Your task to perform on an android device: View the shopping cart on bestbuy. Search for "macbook" on bestbuy, select the first entry, add it to the cart, then select checkout. Image 0: 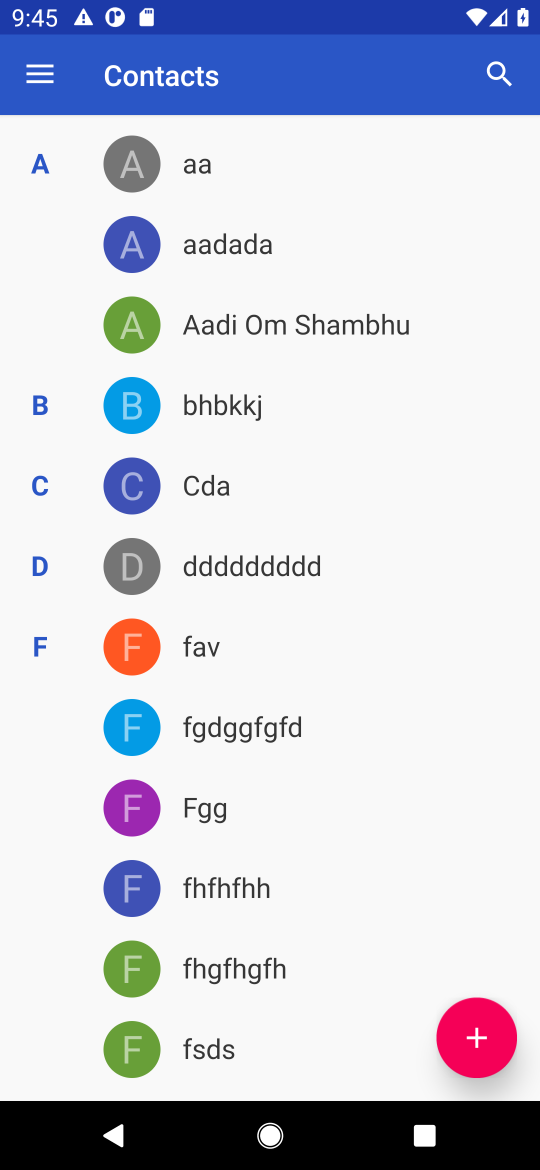
Step 0: press home button
Your task to perform on an android device: View the shopping cart on bestbuy. Search for "macbook" on bestbuy, select the first entry, add it to the cart, then select checkout. Image 1: 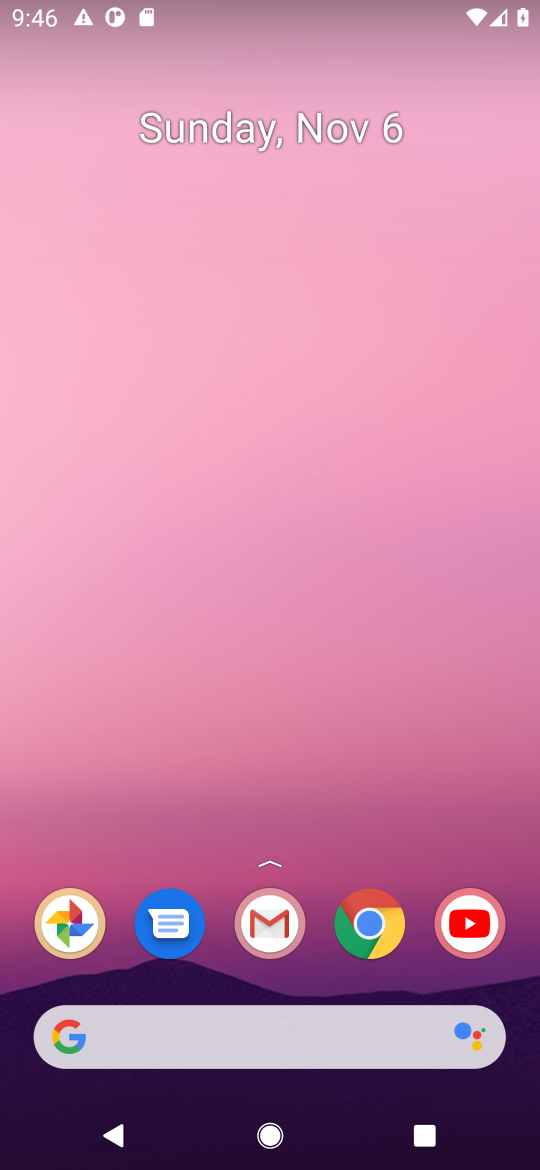
Step 1: click (374, 945)
Your task to perform on an android device: View the shopping cart on bestbuy. Search for "macbook" on bestbuy, select the first entry, add it to the cart, then select checkout. Image 2: 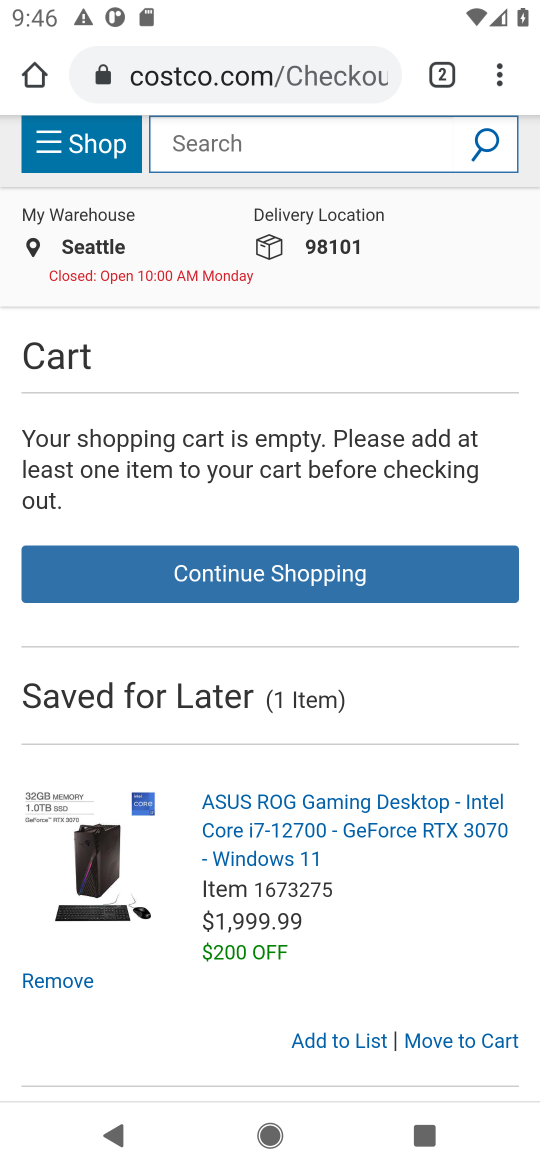
Step 2: click (255, 65)
Your task to perform on an android device: View the shopping cart on bestbuy. Search for "macbook" on bestbuy, select the first entry, add it to the cart, then select checkout. Image 3: 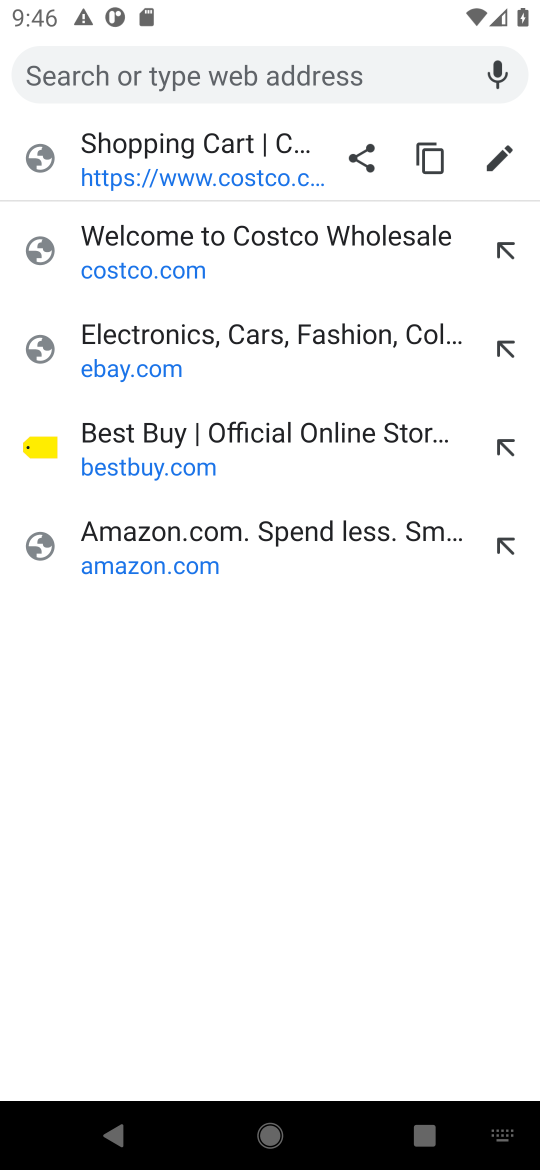
Step 3: click (177, 480)
Your task to perform on an android device: View the shopping cart on bestbuy. Search for "macbook" on bestbuy, select the first entry, add it to the cart, then select checkout. Image 4: 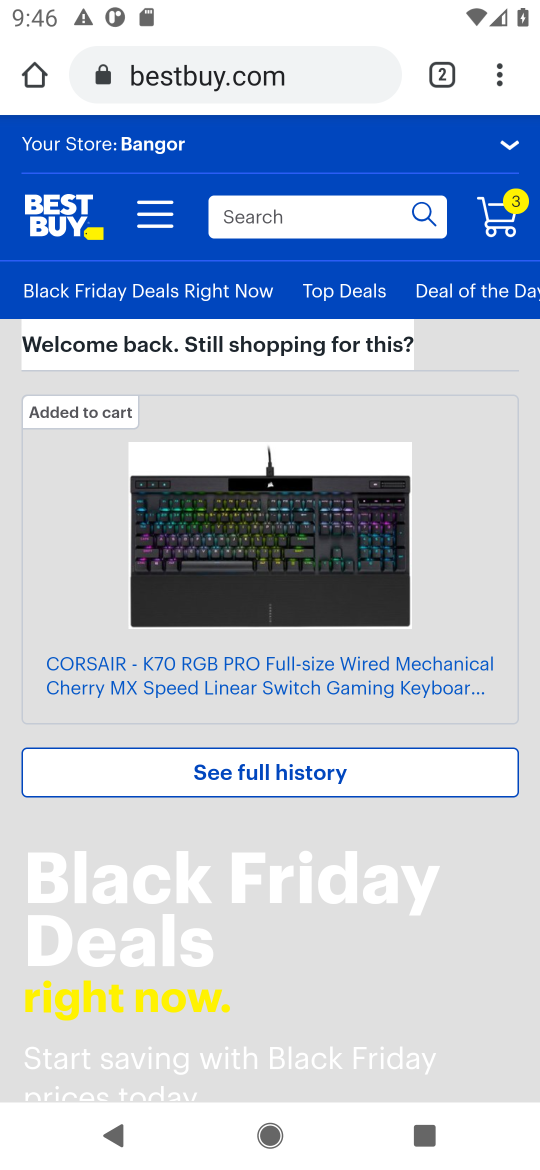
Step 4: click (515, 206)
Your task to perform on an android device: View the shopping cart on bestbuy. Search for "macbook" on bestbuy, select the first entry, add it to the cart, then select checkout. Image 5: 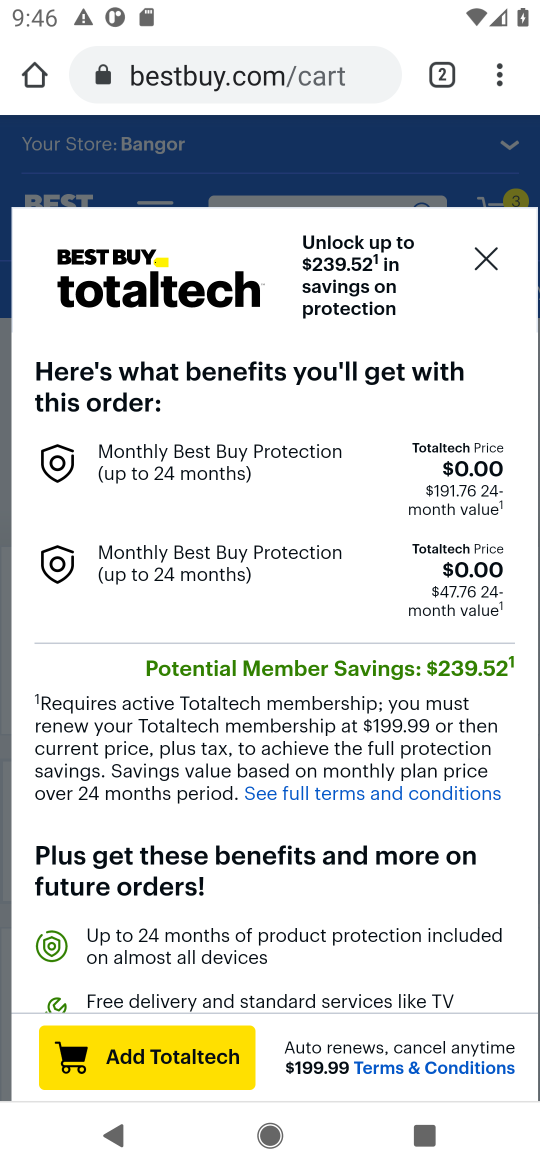
Step 5: click (479, 268)
Your task to perform on an android device: View the shopping cart on bestbuy. Search for "macbook" on bestbuy, select the first entry, add it to the cart, then select checkout. Image 6: 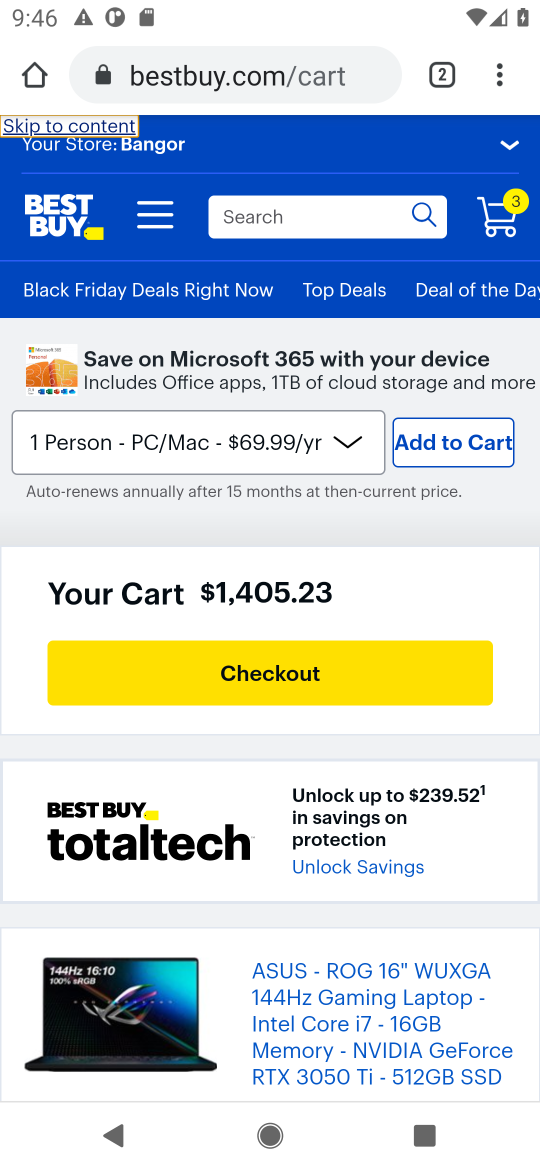
Step 6: click (303, 223)
Your task to perform on an android device: View the shopping cart on bestbuy. Search for "macbook" on bestbuy, select the first entry, add it to the cart, then select checkout. Image 7: 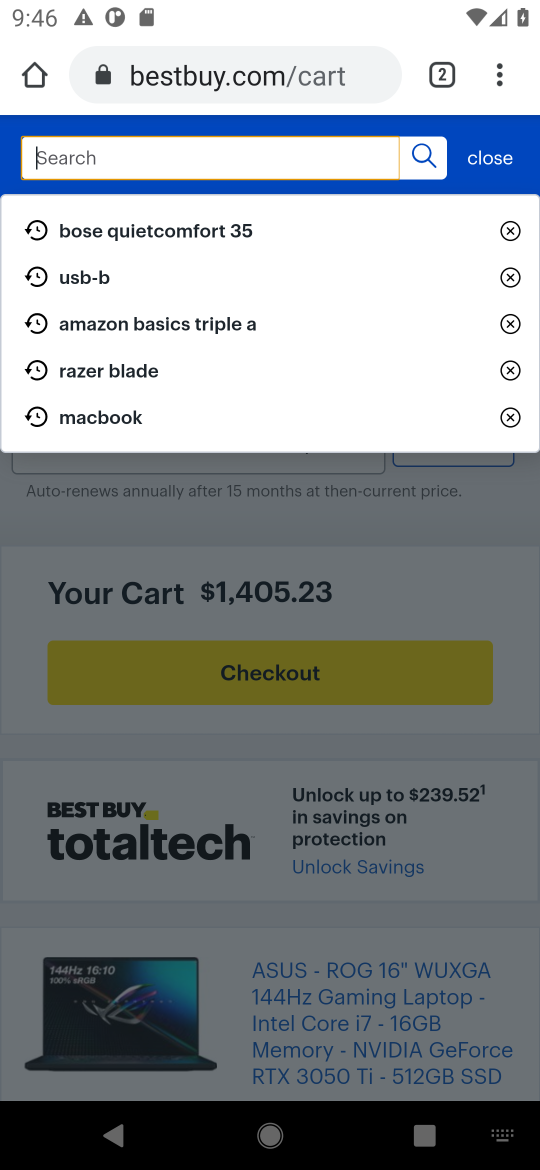
Step 7: type "macbook"
Your task to perform on an android device: View the shopping cart on bestbuy. Search for "macbook" on bestbuy, select the first entry, add it to the cart, then select checkout. Image 8: 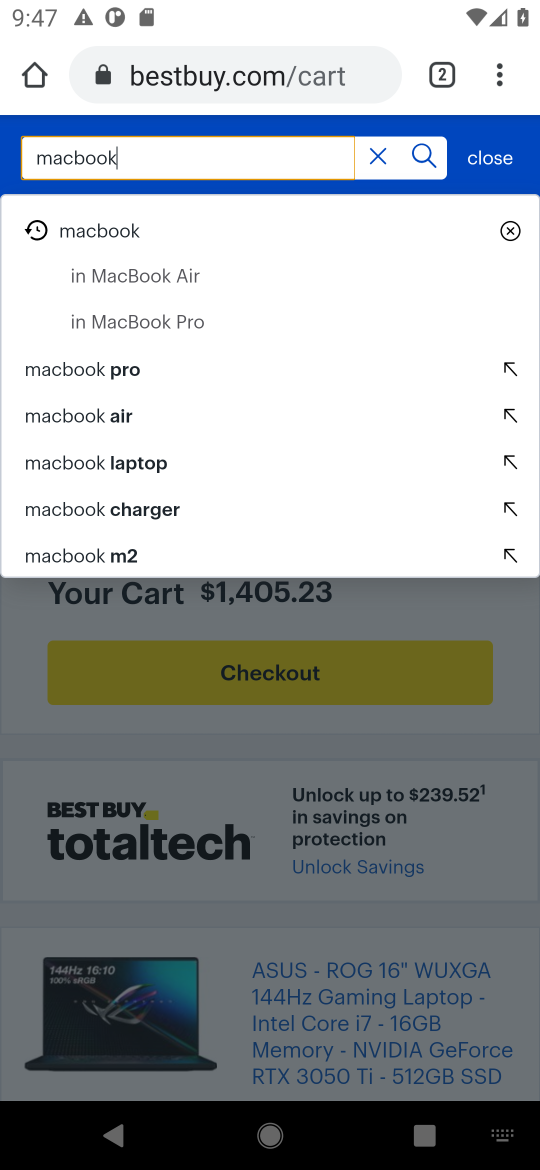
Step 8: click (74, 244)
Your task to perform on an android device: View the shopping cart on bestbuy. Search for "macbook" on bestbuy, select the first entry, add it to the cart, then select checkout. Image 9: 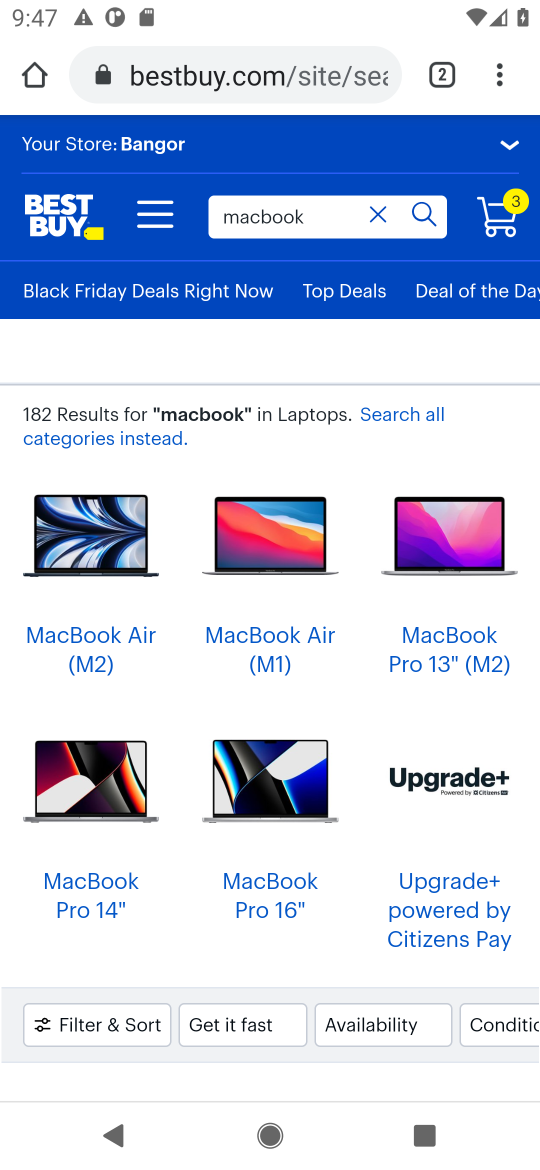
Step 9: drag from (376, 758) to (376, 462)
Your task to perform on an android device: View the shopping cart on bestbuy. Search for "macbook" on bestbuy, select the first entry, add it to the cart, then select checkout. Image 10: 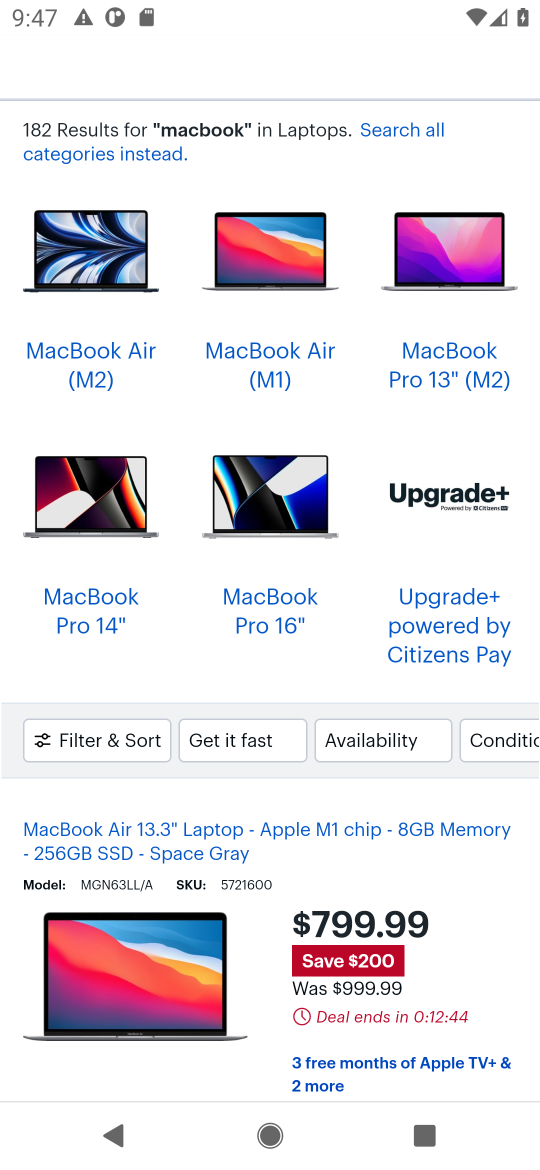
Step 10: drag from (295, 836) to (315, 435)
Your task to perform on an android device: View the shopping cart on bestbuy. Search for "macbook" on bestbuy, select the first entry, add it to the cart, then select checkout. Image 11: 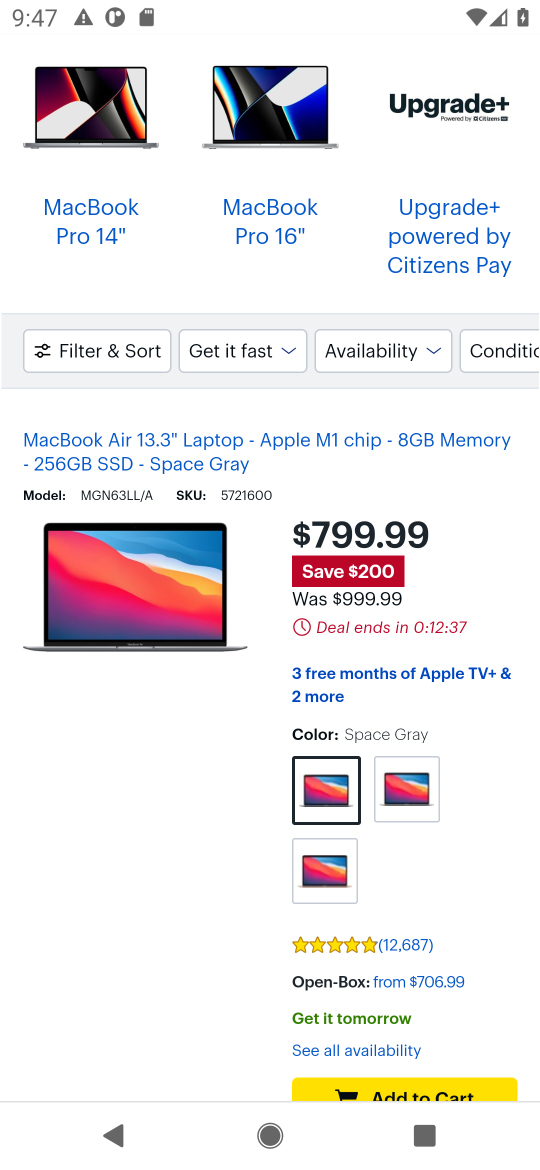
Step 11: drag from (489, 923) to (463, 711)
Your task to perform on an android device: View the shopping cart on bestbuy. Search for "macbook" on bestbuy, select the first entry, add it to the cart, then select checkout. Image 12: 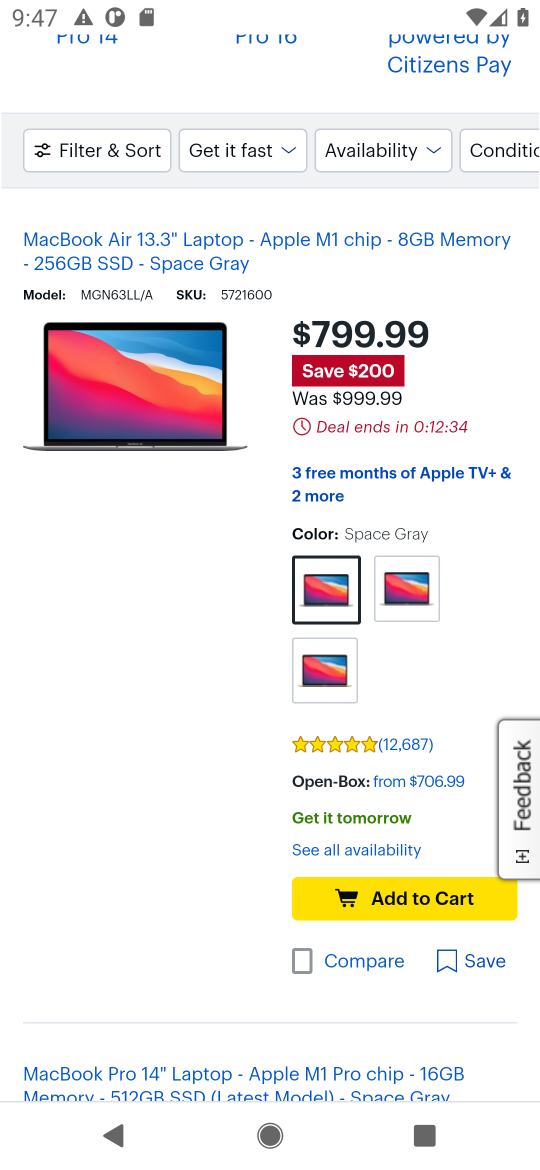
Step 12: click (391, 891)
Your task to perform on an android device: View the shopping cart on bestbuy. Search for "macbook" on bestbuy, select the first entry, add it to the cart, then select checkout. Image 13: 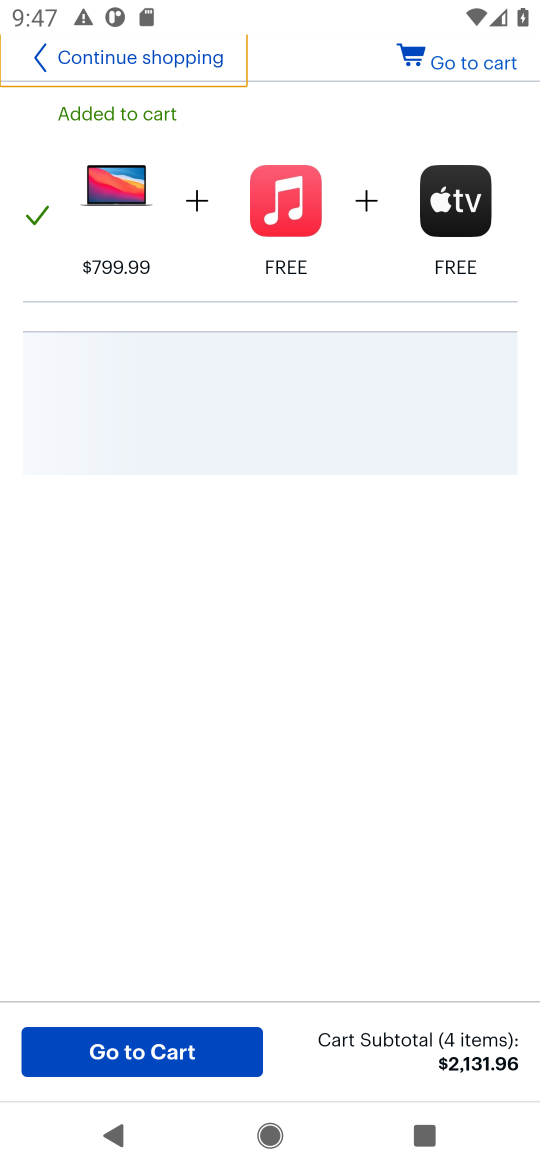
Step 13: click (457, 65)
Your task to perform on an android device: View the shopping cart on bestbuy. Search for "macbook" on bestbuy, select the first entry, add it to the cart, then select checkout. Image 14: 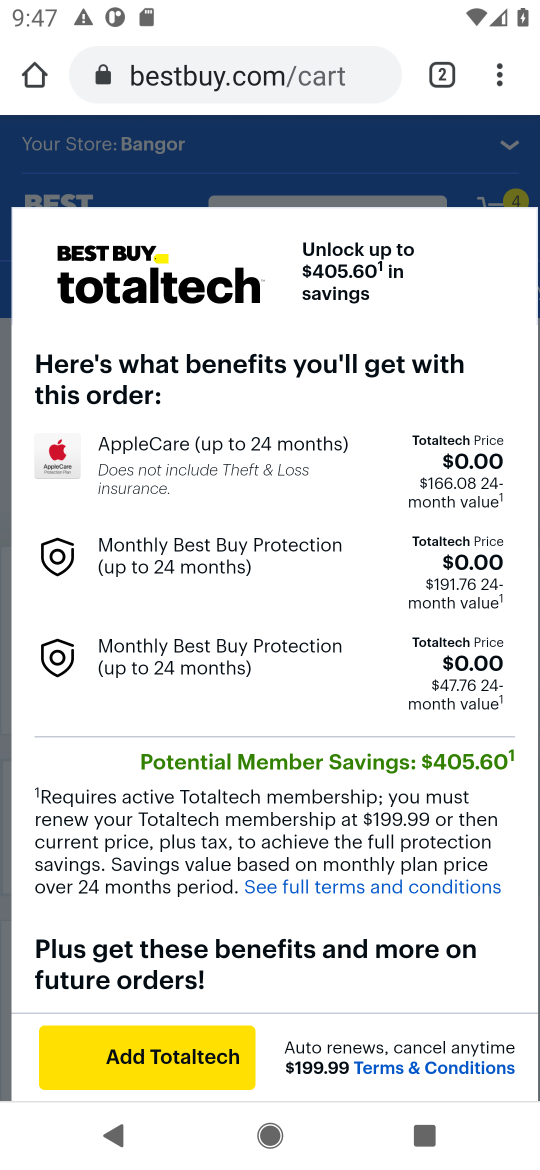
Step 14: click (263, 675)
Your task to perform on an android device: View the shopping cart on bestbuy. Search for "macbook" on bestbuy, select the first entry, add it to the cart, then select checkout. Image 15: 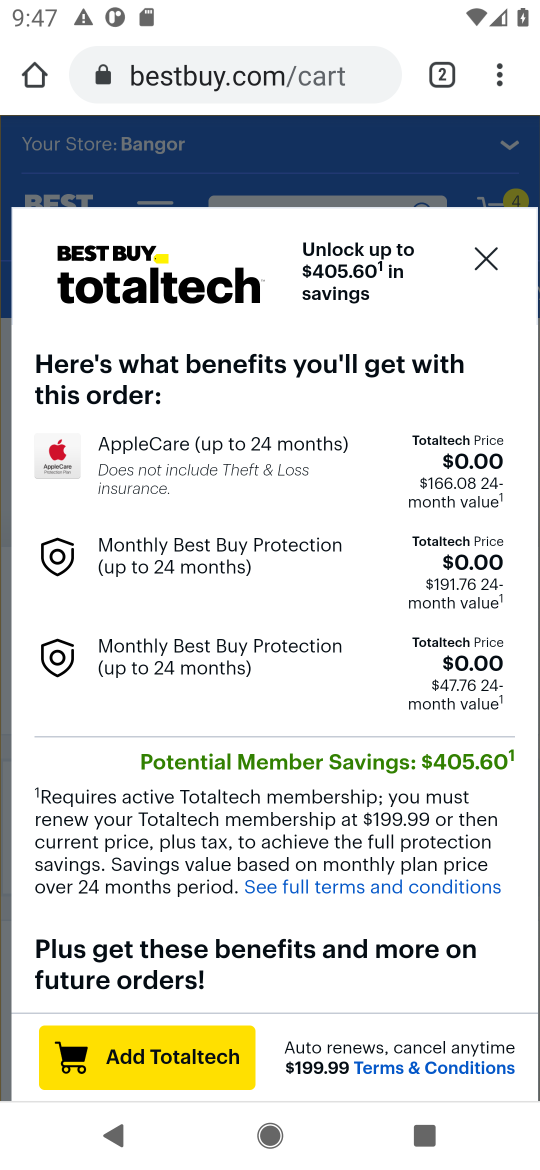
Step 15: click (487, 276)
Your task to perform on an android device: View the shopping cart on bestbuy. Search for "macbook" on bestbuy, select the first entry, add it to the cart, then select checkout. Image 16: 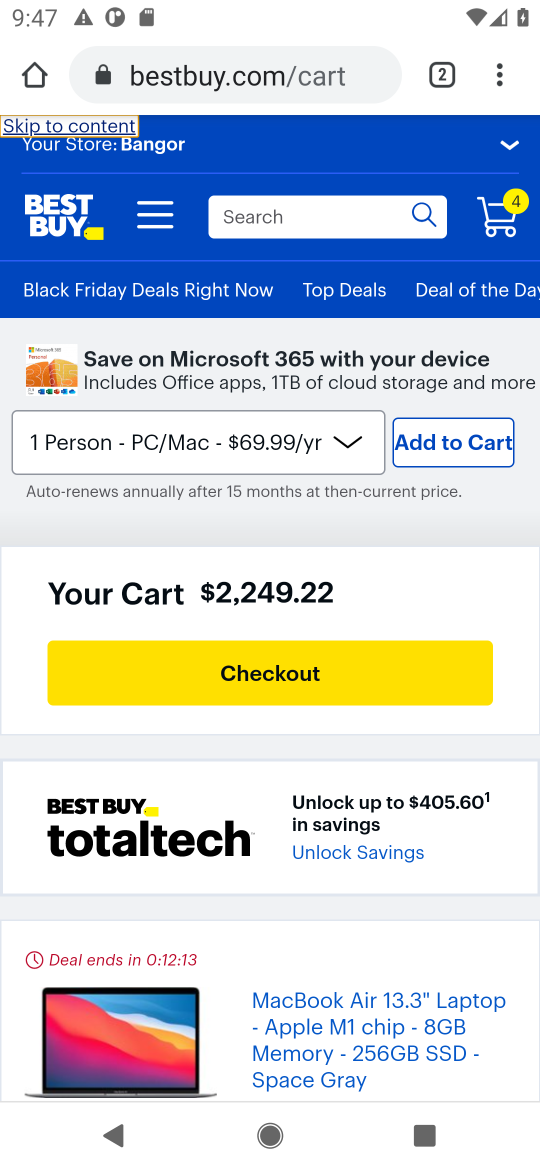
Step 16: click (275, 675)
Your task to perform on an android device: View the shopping cart on bestbuy. Search for "macbook" on bestbuy, select the first entry, add it to the cart, then select checkout. Image 17: 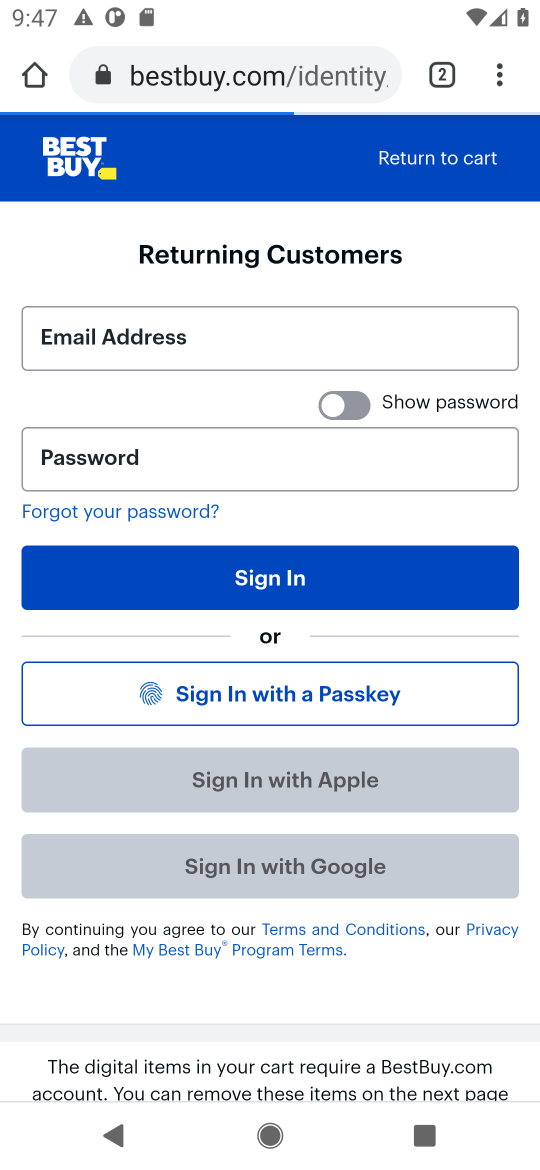
Step 17: task complete